Your task to perform on an android device: turn on data saver in the chrome app Image 0: 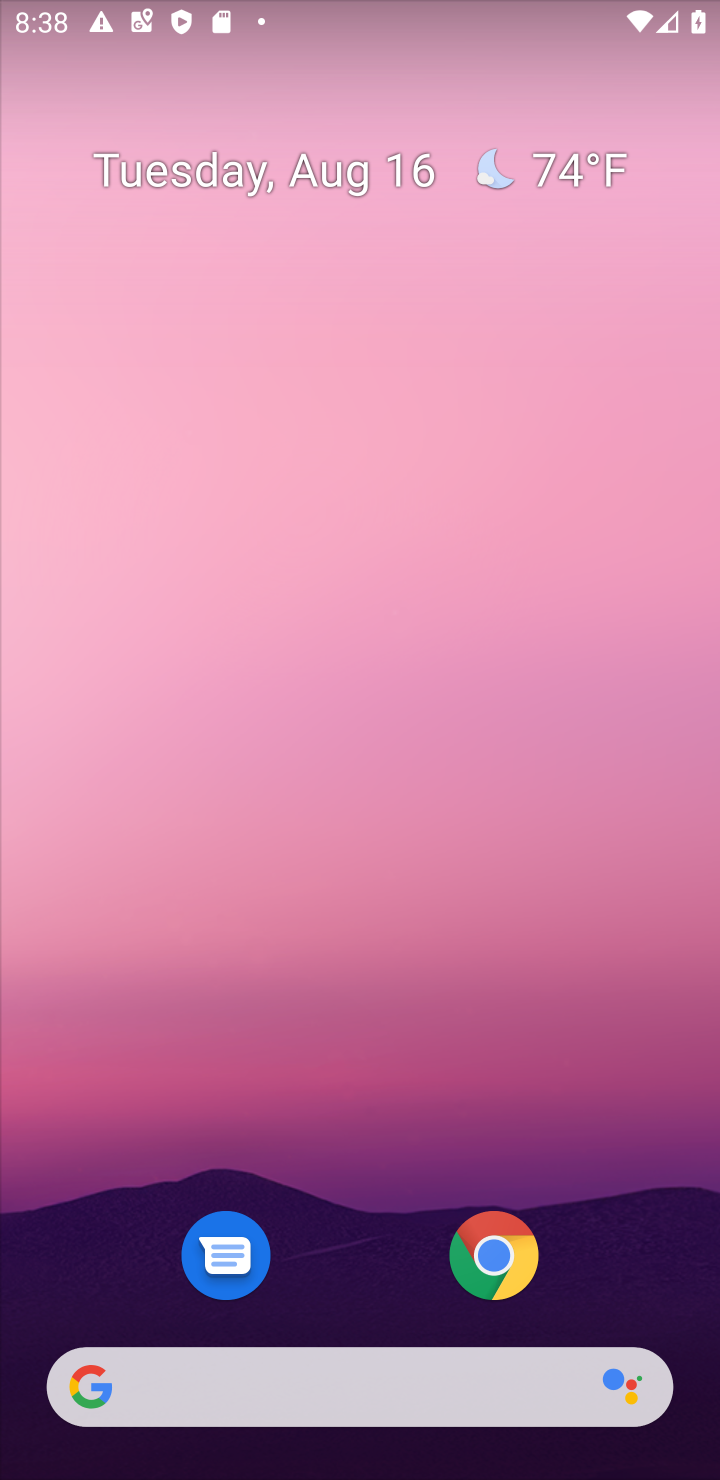
Step 0: drag from (408, 1364) to (704, 51)
Your task to perform on an android device: turn on data saver in the chrome app Image 1: 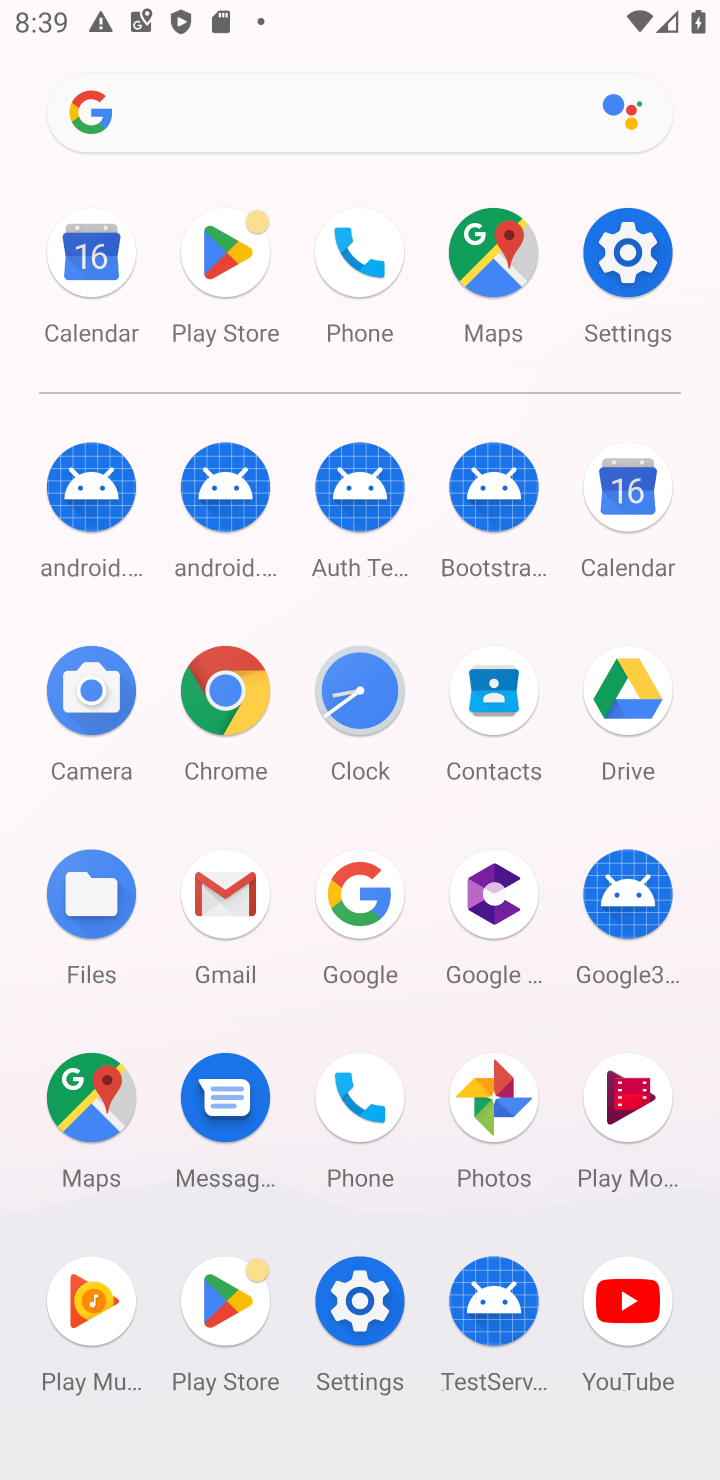
Step 1: click (286, 680)
Your task to perform on an android device: turn on data saver in the chrome app Image 2: 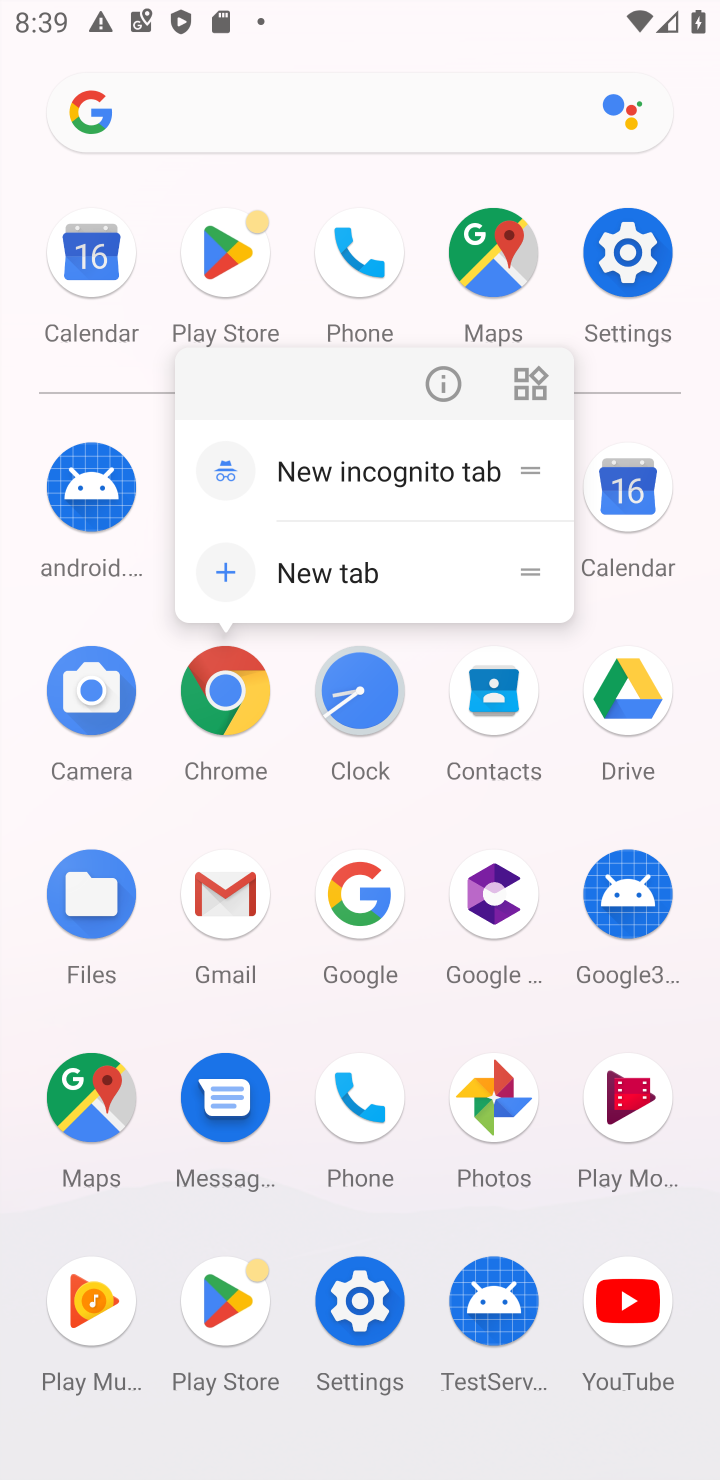
Step 2: click (286, 680)
Your task to perform on an android device: turn on data saver in the chrome app Image 3: 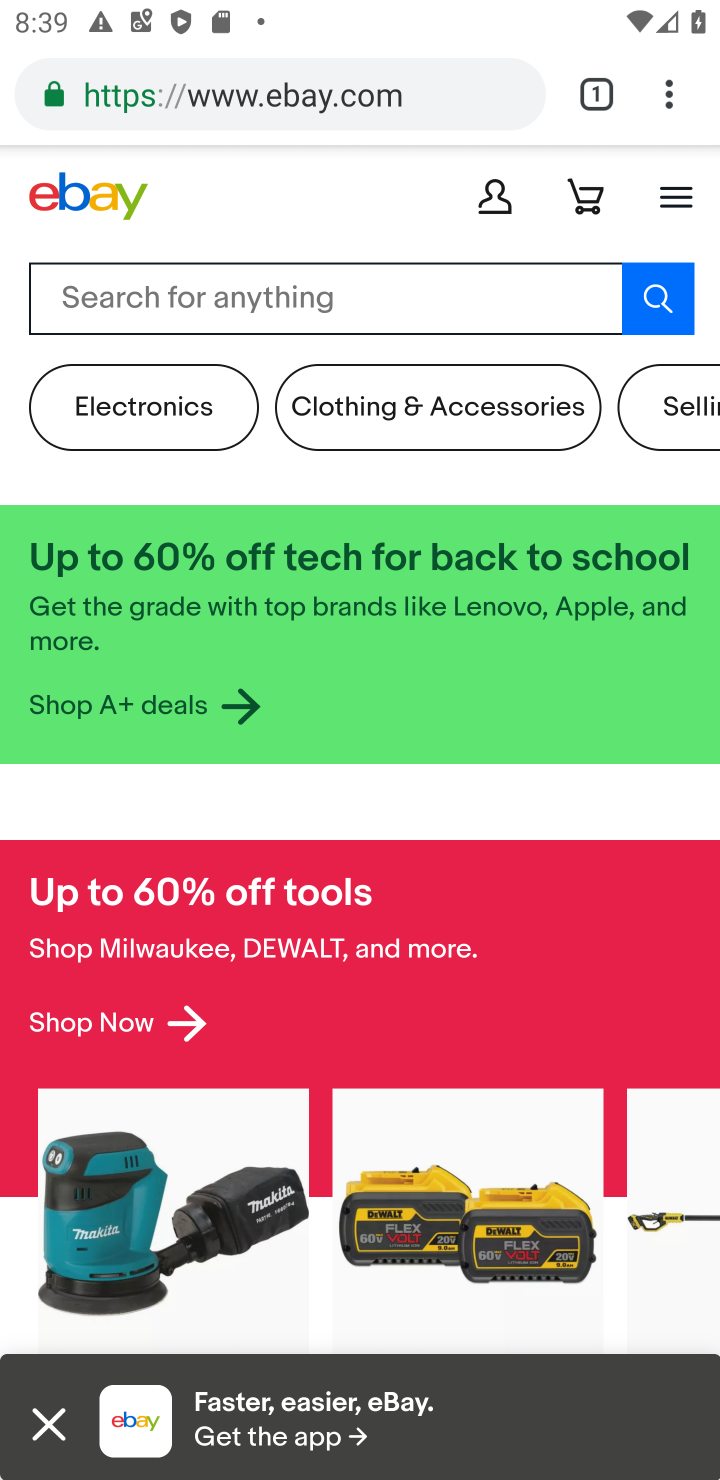
Step 3: click (666, 95)
Your task to perform on an android device: turn on data saver in the chrome app Image 4: 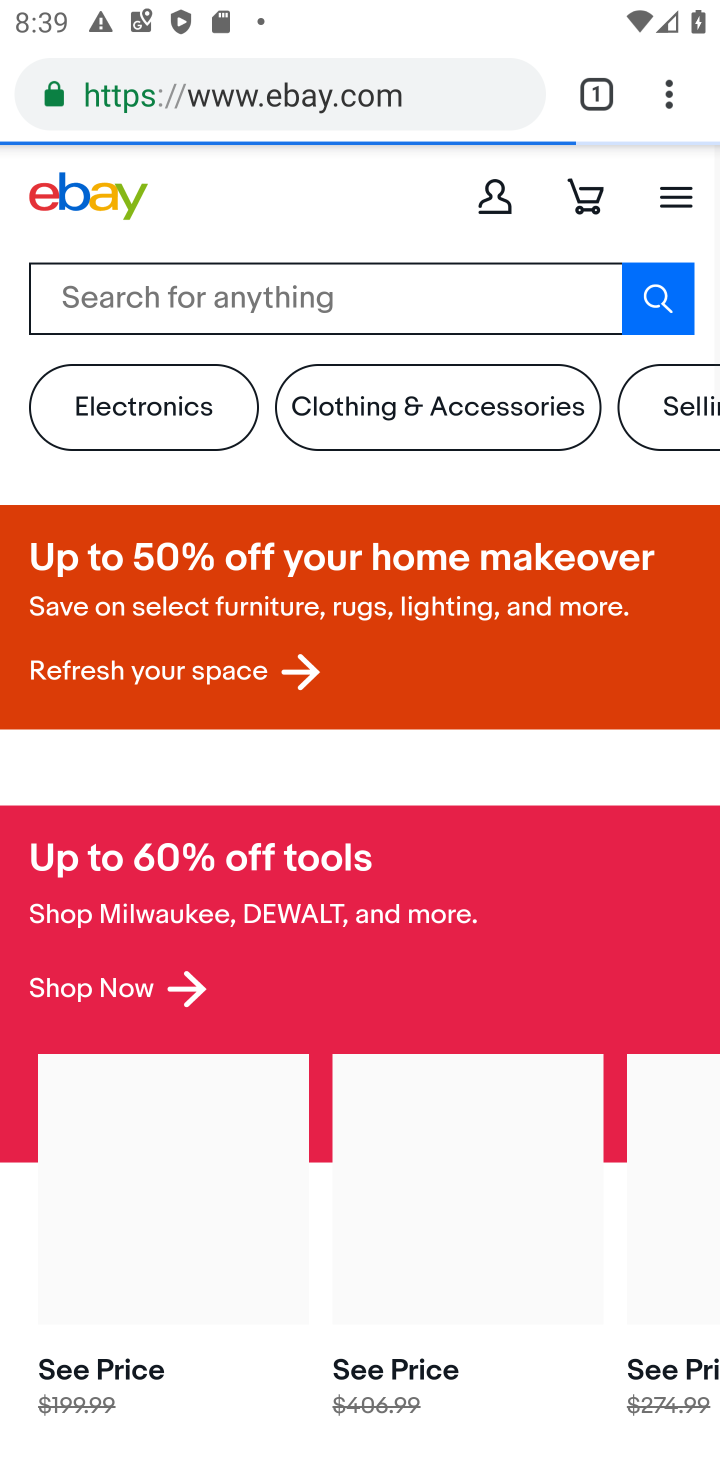
Step 4: drag from (685, 91) to (327, 1242)
Your task to perform on an android device: turn on data saver in the chrome app Image 5: 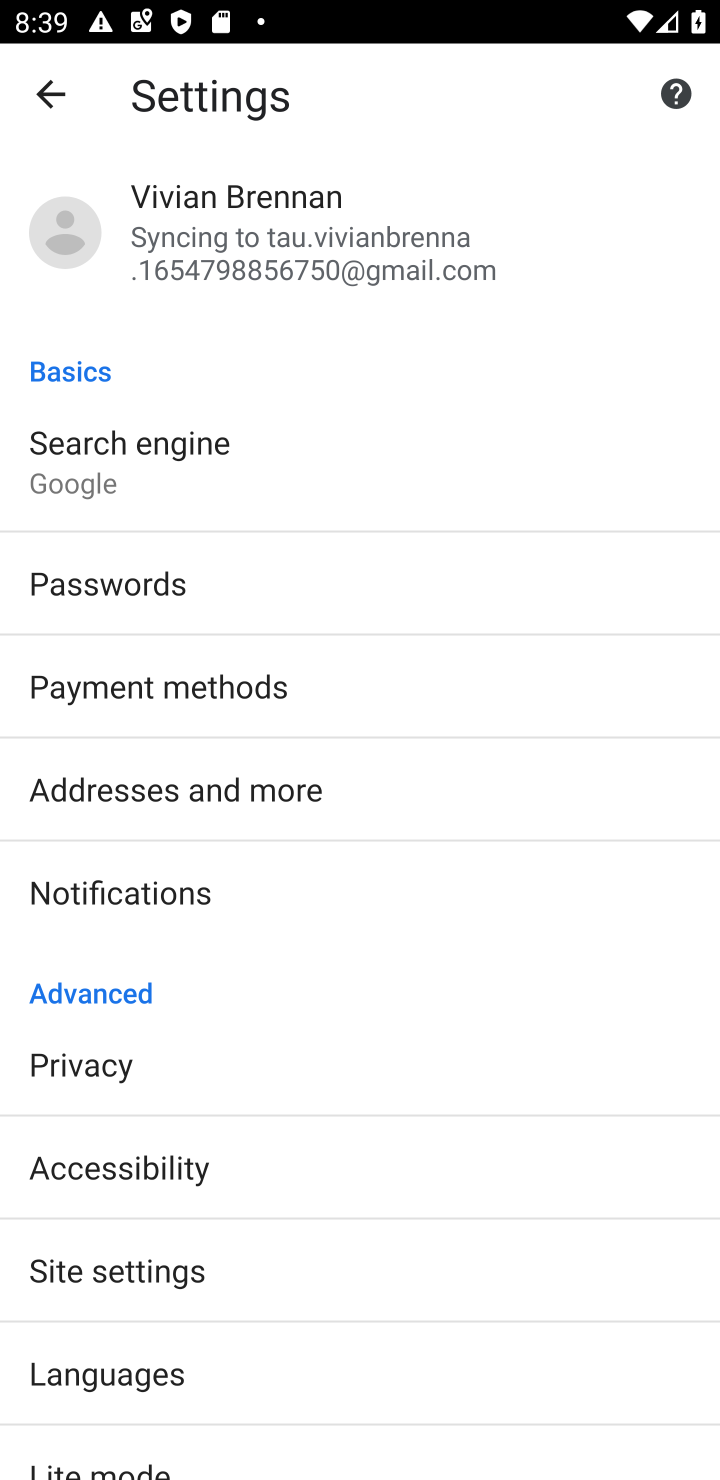
Step 5: click (192, 1455)
Your task to perform on an android device: turn on data saver in the chrome app Image 6: 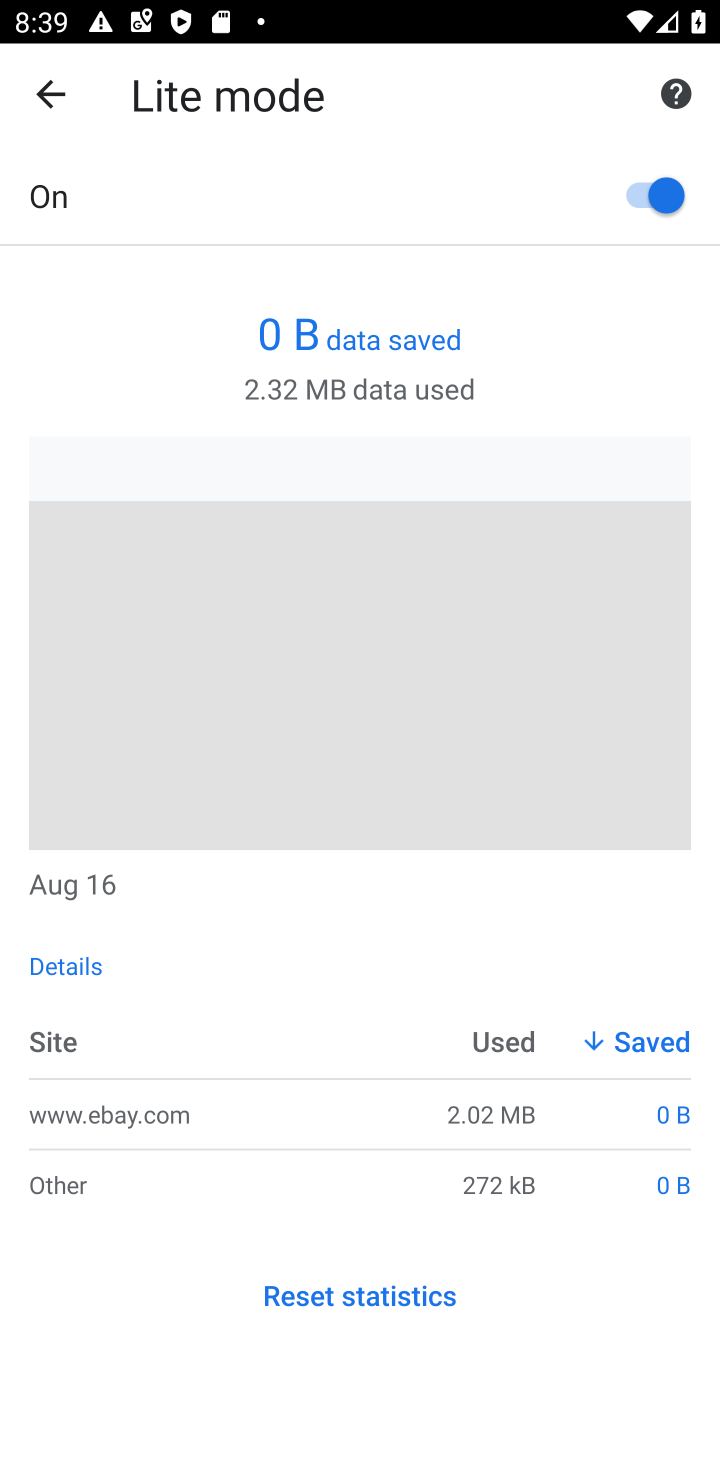
Step 6: task complete